Your task to perform on an android device: visit the assistant section in the google photos Image 0: 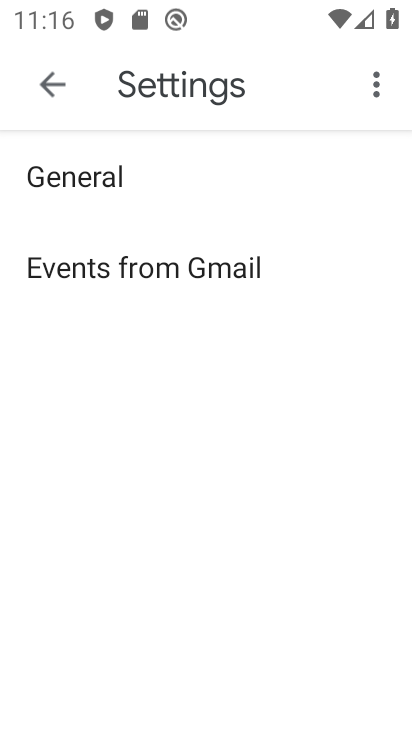
Step 0: press home button
Your task to perform on an android device: visit the assistant section in the google photos Image 1: 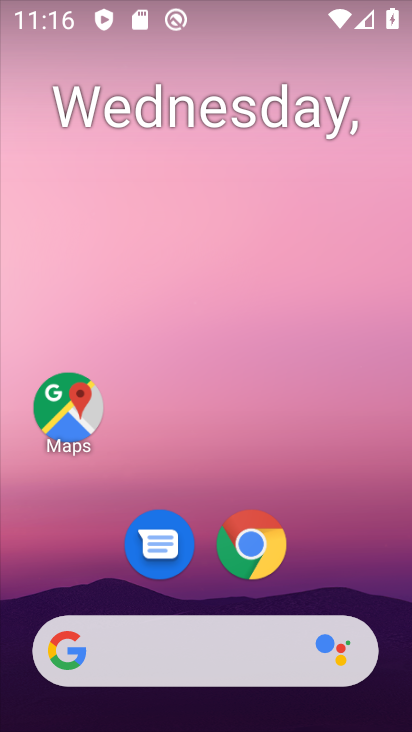
Step 1: click (289, 178)
Your task to perform on an android device: visit the assistant section in the google photos Image 2: 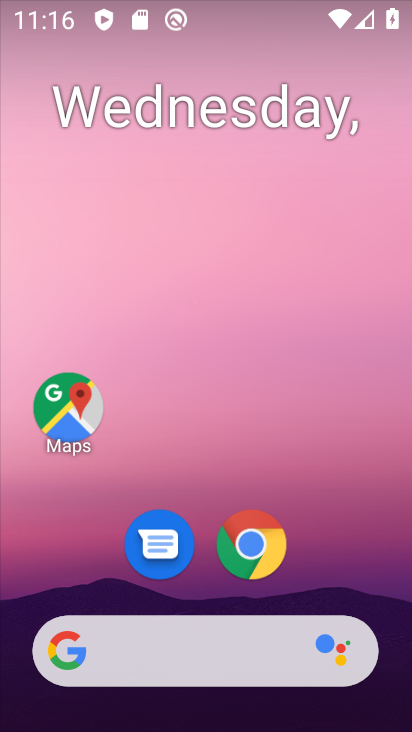
Step 2: drag from (317, 378) to (309, 177)
Your task to perform on an android device: visit the assistant section in the google photos Image 3: 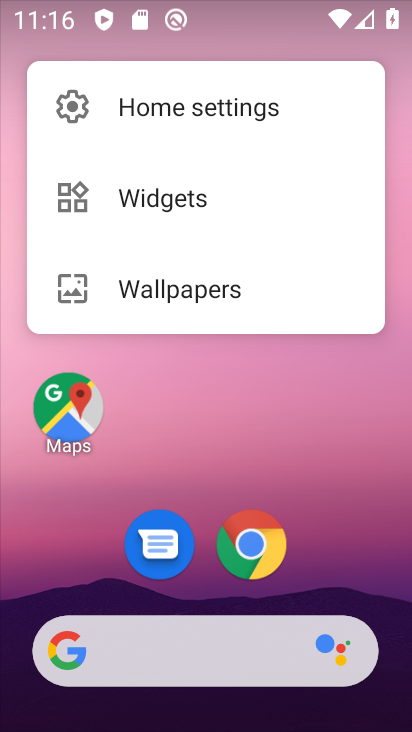
Step 3: click (388, 110)
Your task to perform on an android device: visit the assistant section in the google photos Image 4: 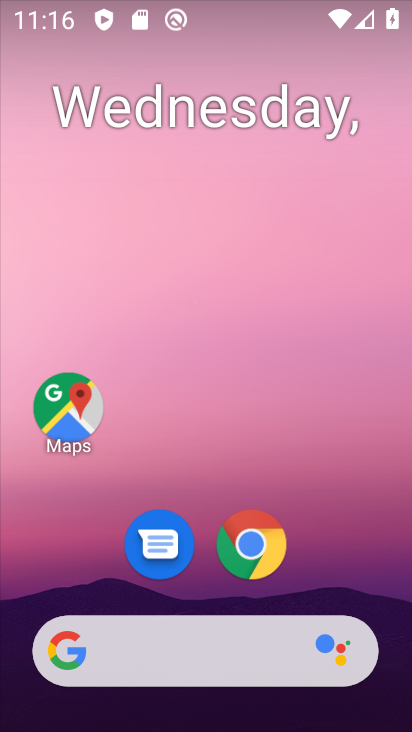
Step 4: drag from (352, 375) to (357, 41)
Your task to perform on an android device: visit the assistant section in the google photos Image 5: 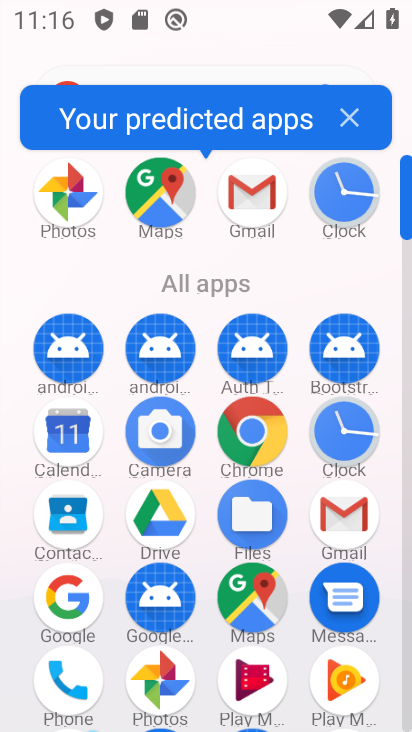
Step 5: drag from (209, 630) to (266, 285)
Your task to perform on an android device: visit the assistant section in the google photos Image 6: 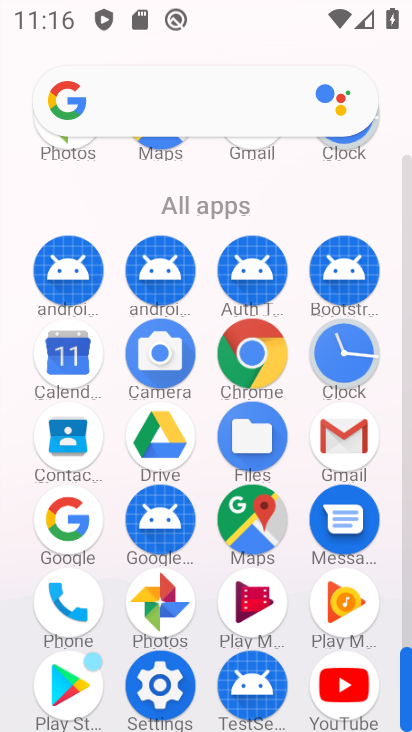
Step 6: click (158, 616)
Your task to perform on an android device: visit the assistant section in the google photos Image 7: 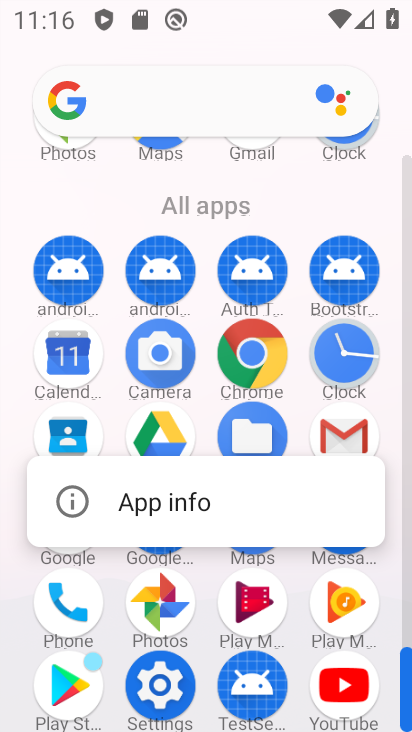
Step 7: click (157, 597)
Your task to perform on an android device: visit the assistant section in the google photos Image 8: 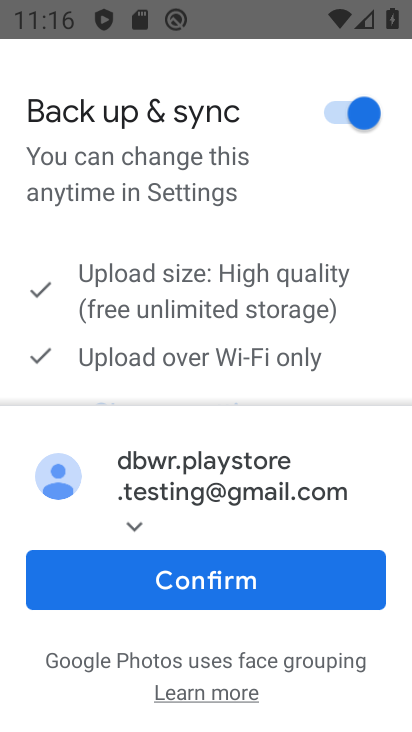
Step 8: click (224, 593)
Your task to perform on an android device: visit the assistant section in the google photos Image 9: 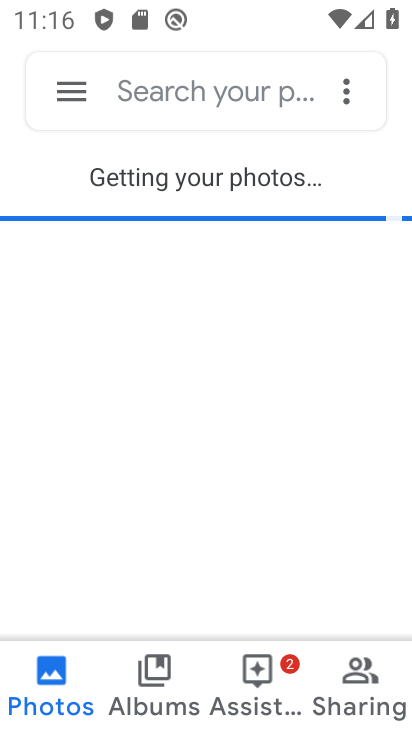
Step 9: click (246, 692)
Your task to perform on an android device: visit the assistant section in the google photos Image 10: 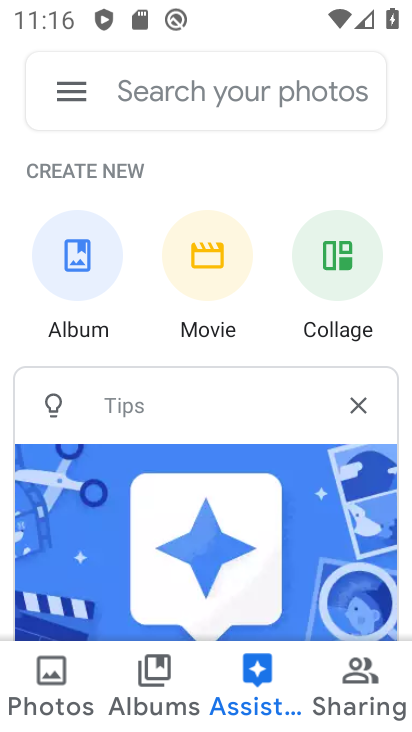
Step 10: drag from (297, 595) to (226, 113)
Your task to perform on an android device: visit the assistant section in the google photos Image 11: 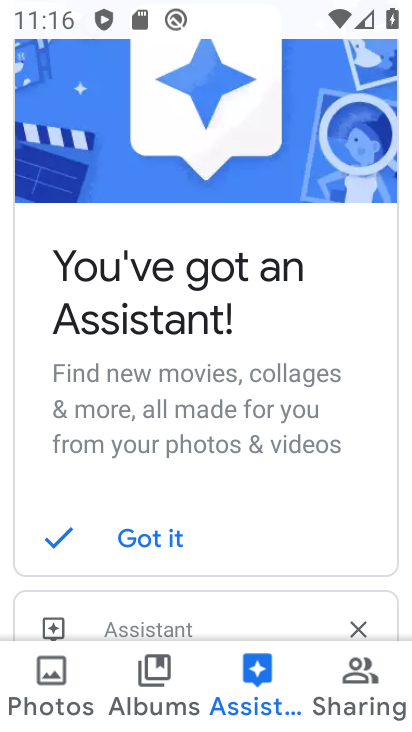
Step 11: drag from (253, 432) to (298, 93)
Your task to perform on an android device: visit the assistant section in the google photos Image 12: 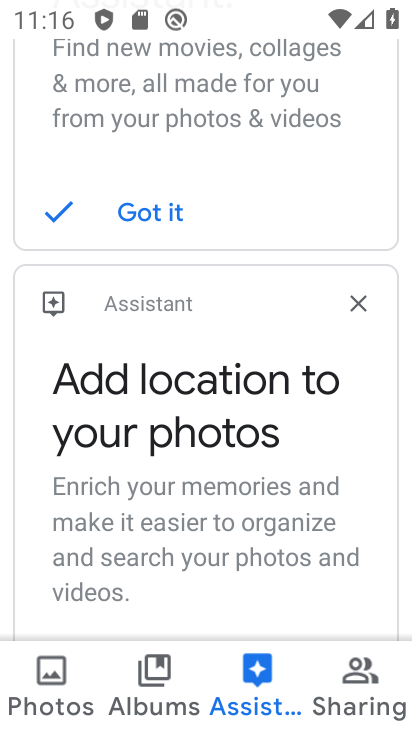
Step 12: click (339, 178)
Your task to perform on an android device: visit the assistant section in the google photos Image 13: 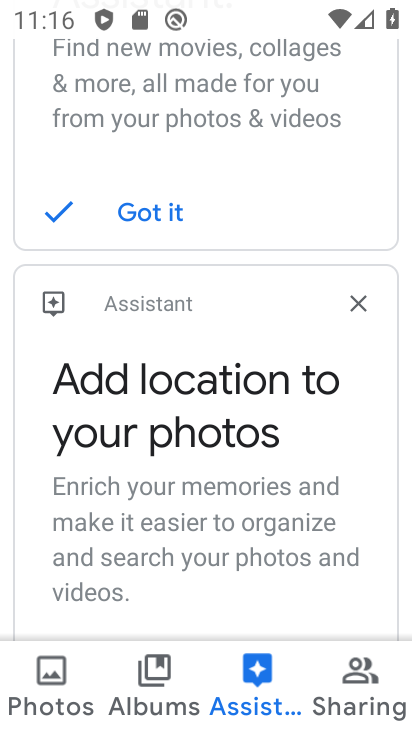
Step 13: task complete